Your task to perform on an android device: turn off location history Image 0: 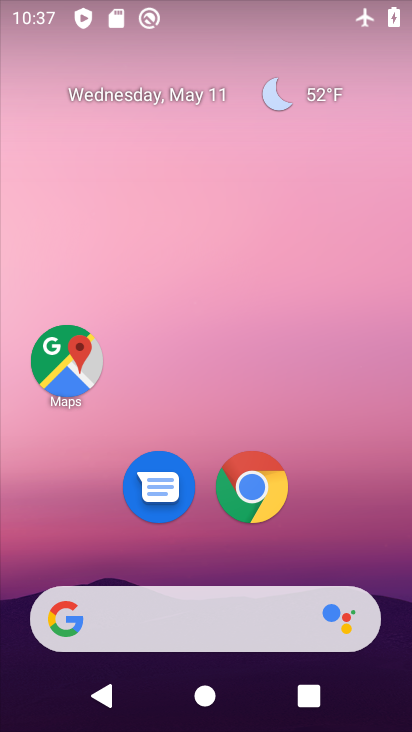
Step 0: drag from (372, 571) to (265, 13)
Your task to perform on an android device: turn off location history Image 1: 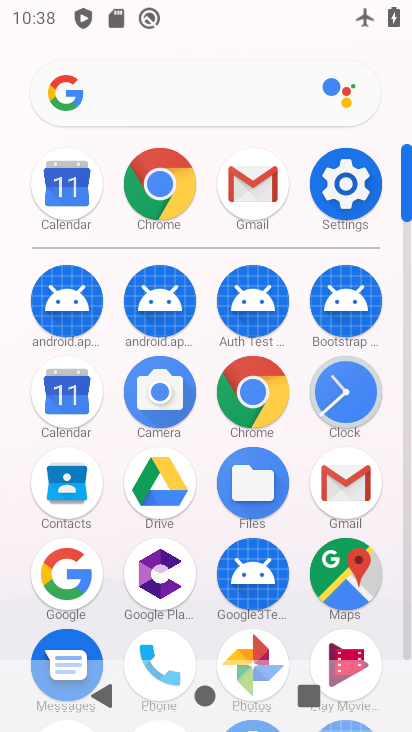
Step 1: drag from (11, 512) to (17, 254)
Your task to perform on an android device: turn off location history Image 2: 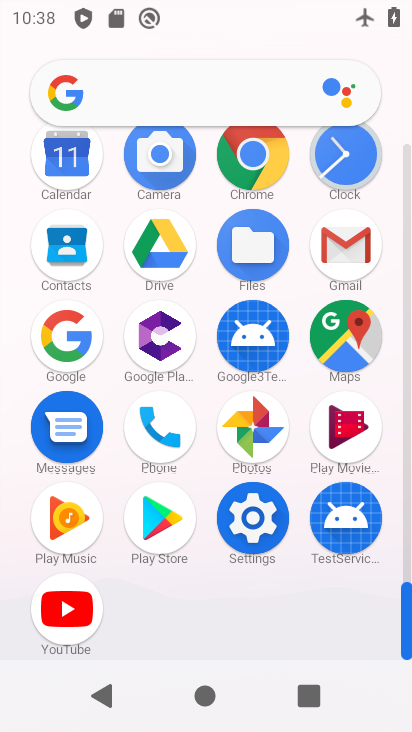
Step 2: click (254, 516)
Your task to perform on an android device: turn off location history Image 3: 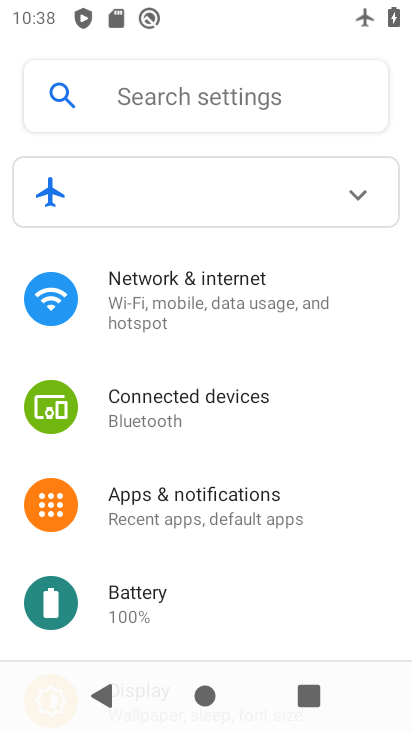
Step 3: drag from (250, 580) to (250, 203)
Your task to perform on an android device: turn off location history Image 4: 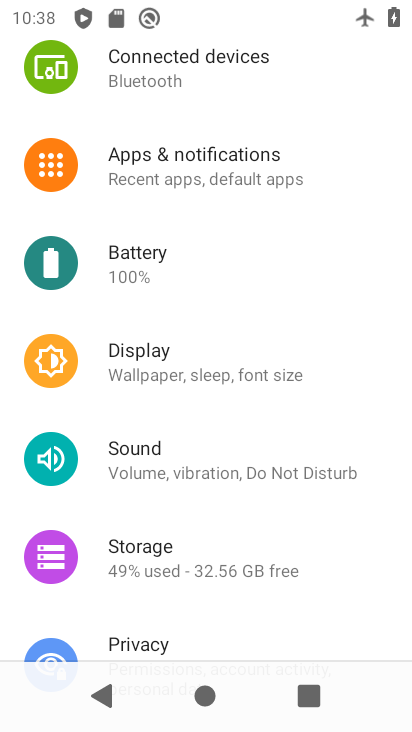
Step 4: drag from (192, 557) to (223, 187)
Your task to perform on an android device: turn off location history Image 5: 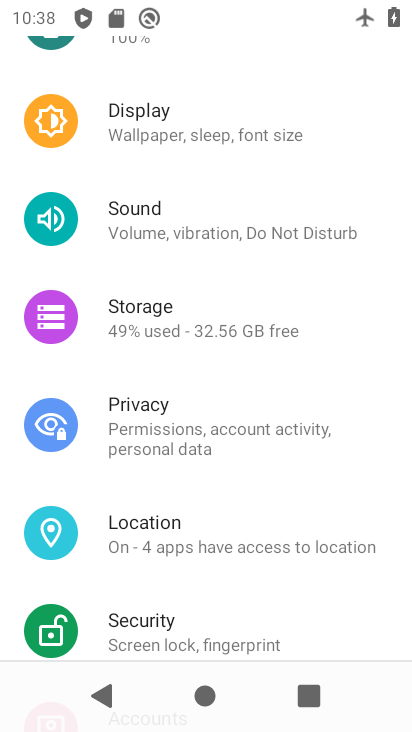
Step 5: click (226, 544)
Your task to perform on an android device: turn off location history Image 6: 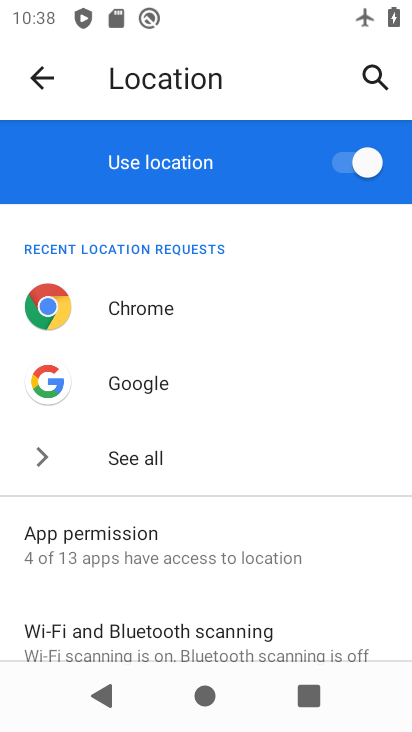
Step 6: click (341, 161)
Your task to perform on an android device: turn off location history Image 7: 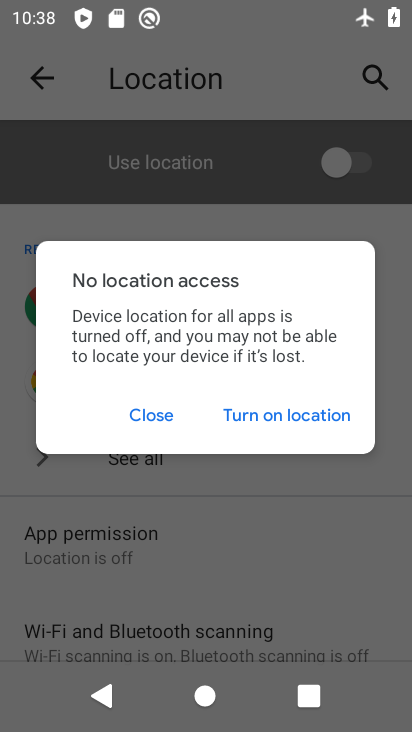
Step 7: click (148, 420)
Your task to perform on an android device: turn off location history Image 8: 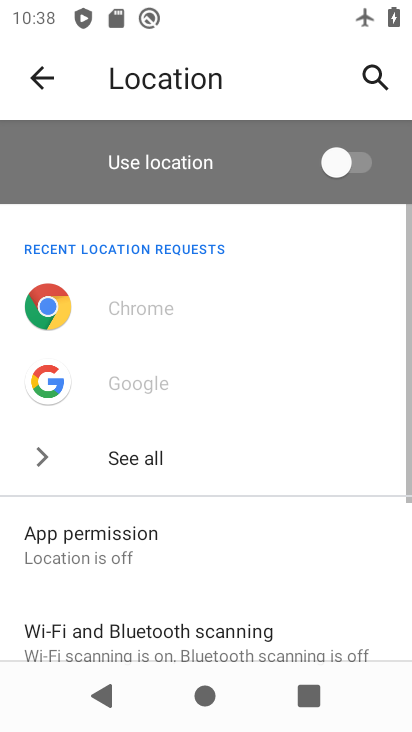
Step 8: drag from (255, 597) to (267, 251)
Your task to perform on an android device: turn off location history Image 9: 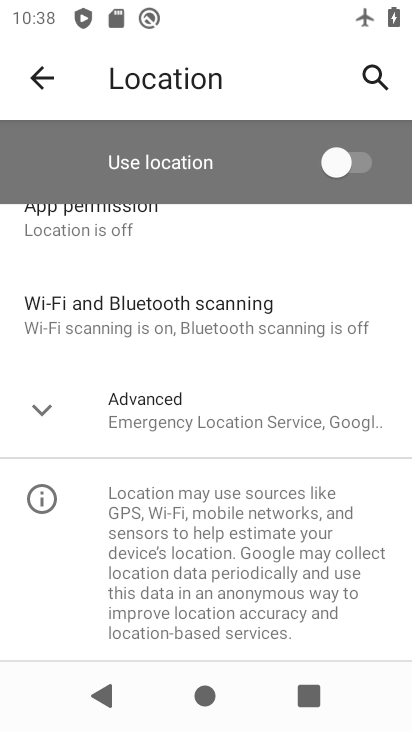
Step 9: click (351, 146)
Your task to perform on an android device: turn off location history Image 10: 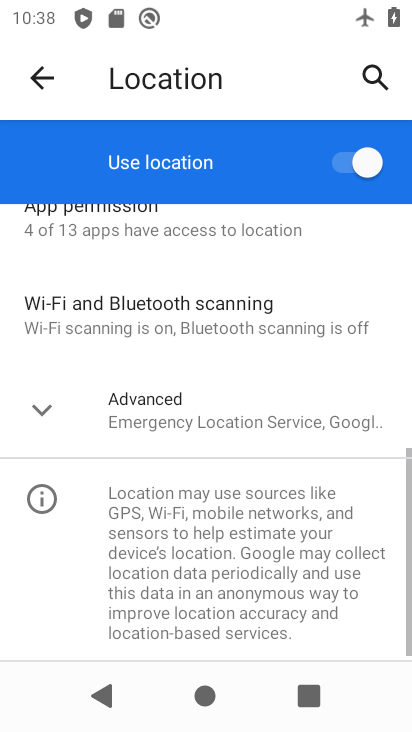
Step 10: click (53, 409)
Your task to perform on an android device: turn off location history Image 11: 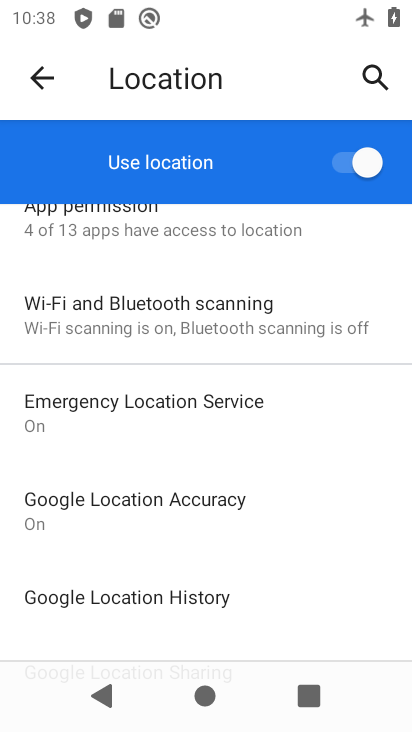
Step 11: click (193, 588)
Your task to perform on an android device: turn off location history Image 12: 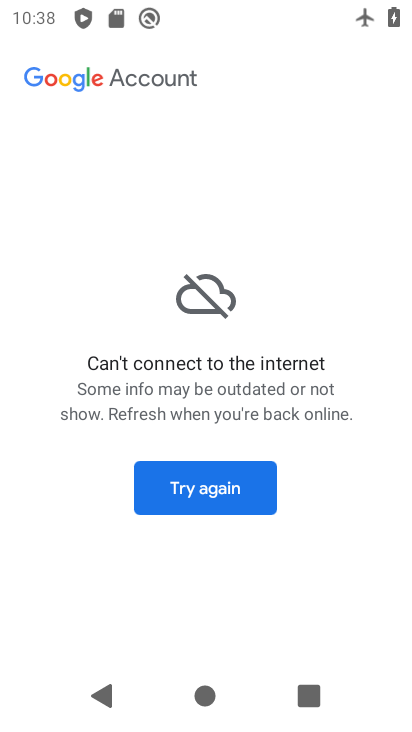
Step 12: task complete